Your task to perform on an android device: set default search engine in the chrome app Image 0: 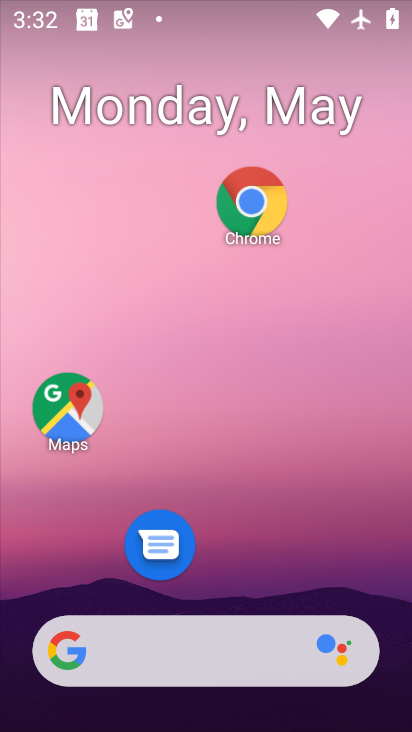
Step 0: click (260, 198)
Your task to perform on an android device: set default search engine in the chrome app Image 1: 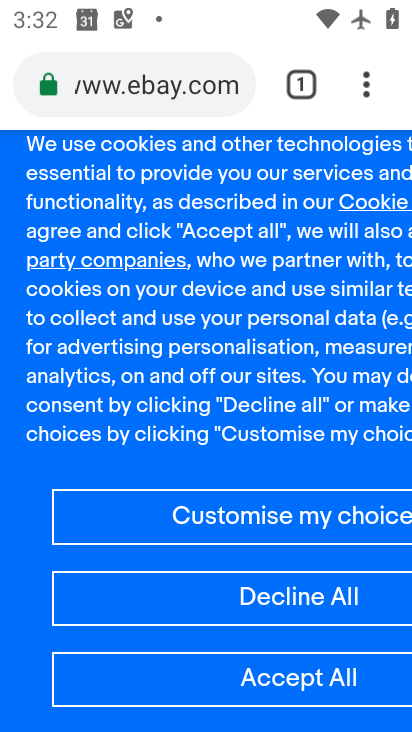
Step 1: drag from (361, 81) to (160, 593)
Your task to perform on an android device: set default search engine in the chrome app Image 2: 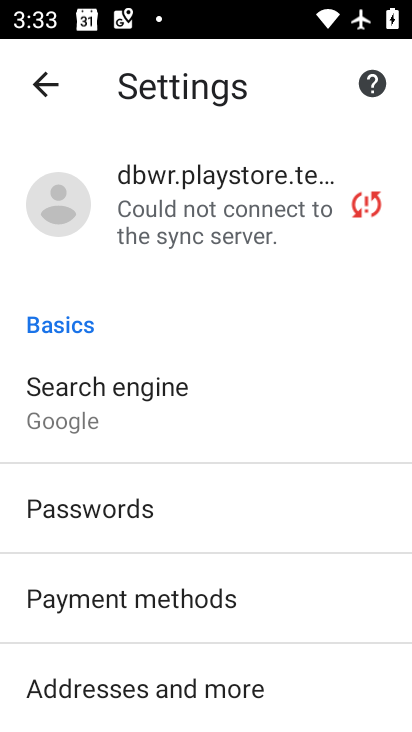
Step 2: click (83, 428)
Your task to perform on an android device: set default search engine in the chrome app Image 3: 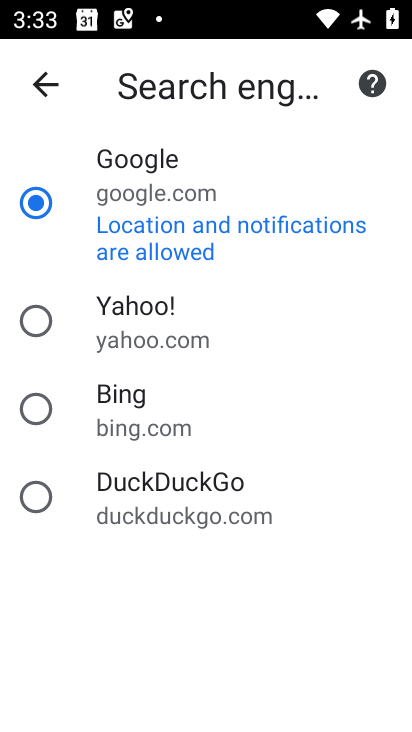
Step 3: click (92, 393)
Your task to perform on an android device: set default search engine in the chrome app Image 4: 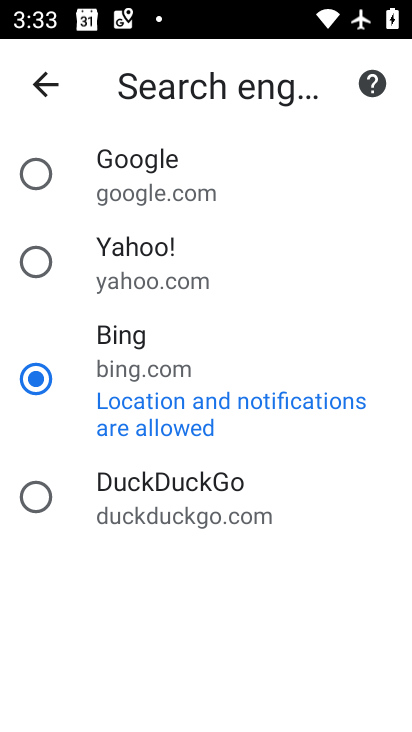
Step 4: task complete